Your task to perform on an android device: Open network settings Image 0: 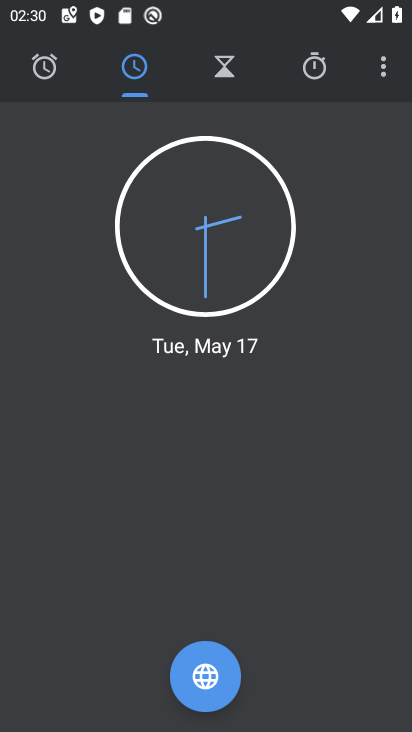
Step 0: press home button
Your task to perform on an android device: Open network settings Image 1: 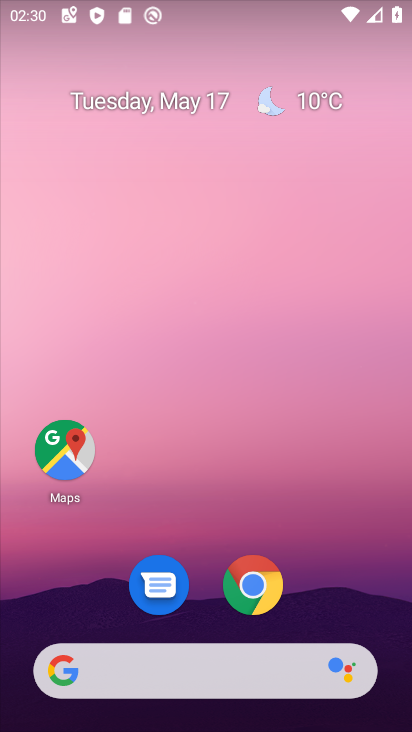
Step 1: drag from (245, 511) to (274, 29)
Your task to perform on an android device: Open network settings Image 2: 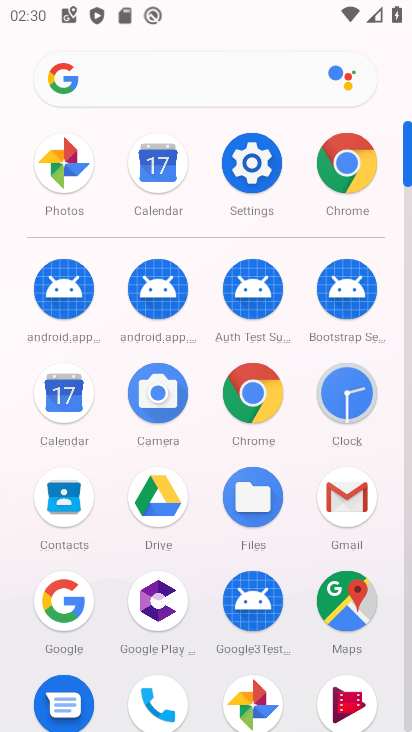
Step 2: click (247, 164)
Your task to perform on an android device: Open network settings Image 3: 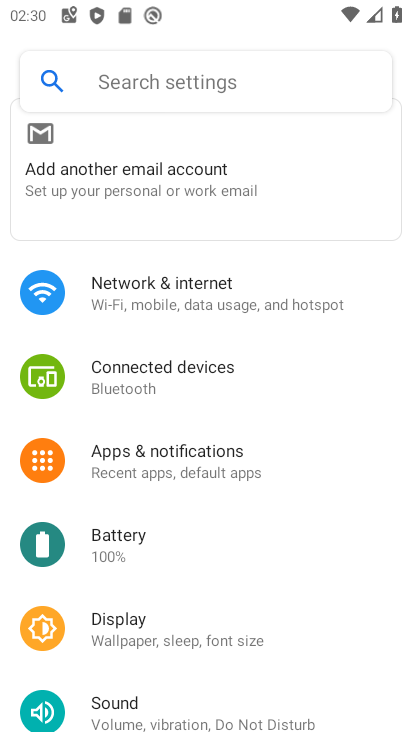
Step 3: click (220, 275)
Your task to perform on an android device: Open network settings Image 4: 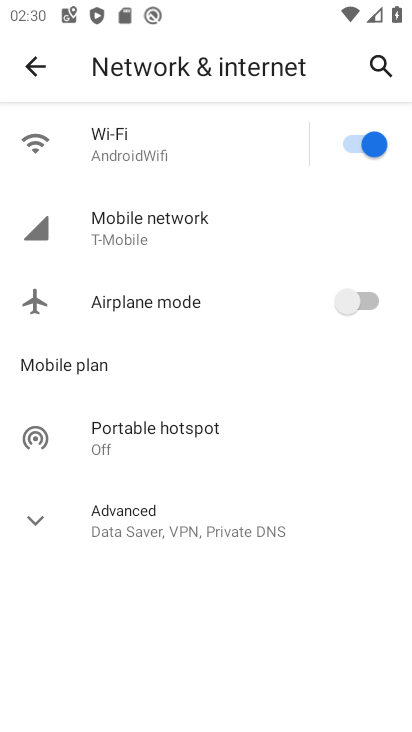
Step 4: task complete